Your task to perform on an android device: Open the map Image 0: 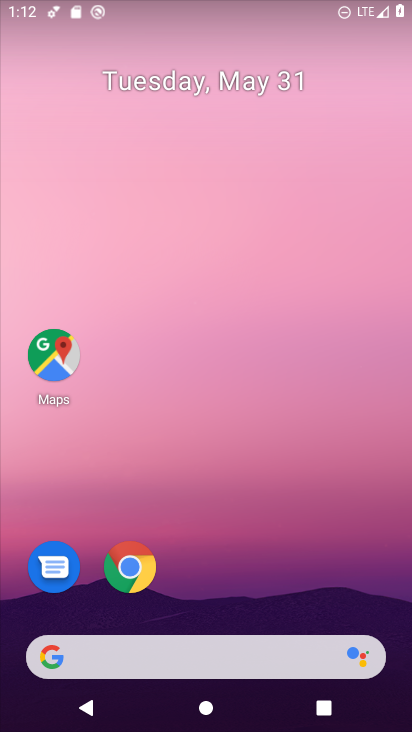
Step 0: click (58, 365)
Your task to perform on an android device: Open the map Image 1: 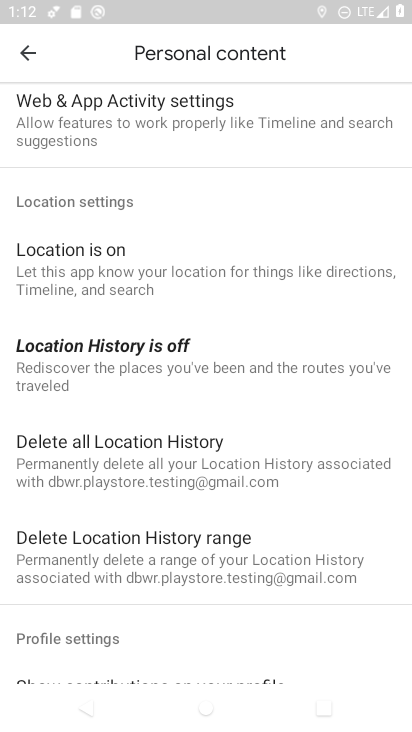
Step 1: click (29, 57)
Your task to perform on an android device: Open the map Image 2: 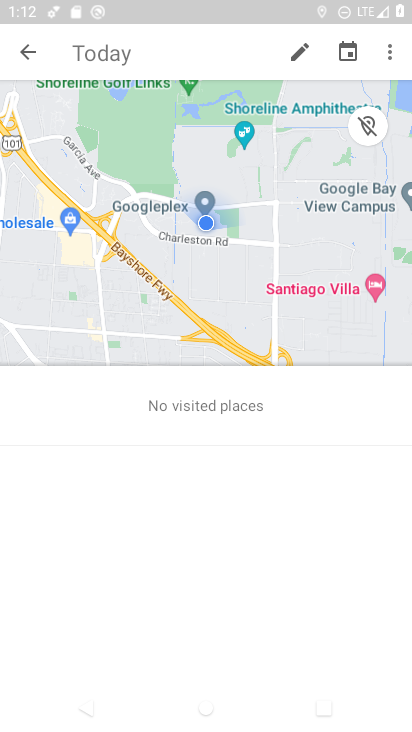
Step 2: task complete